Your task to perform on an android device: find photos in the google photos app Image 0: 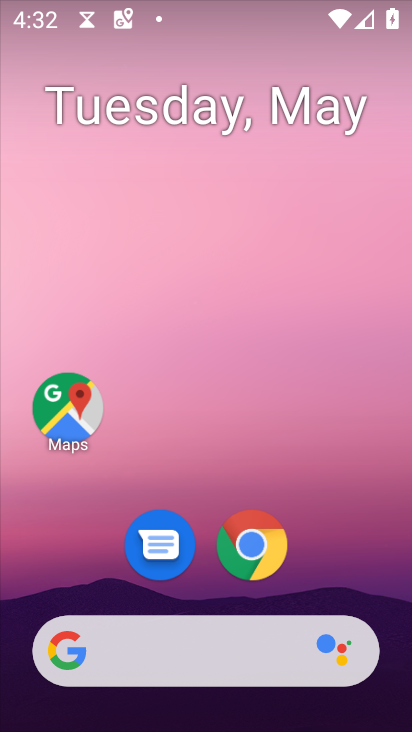
Step 0: drag from (353, 586) to (257, 173)
Your task to perform on an android device: find photos in the google photos app Image 1: 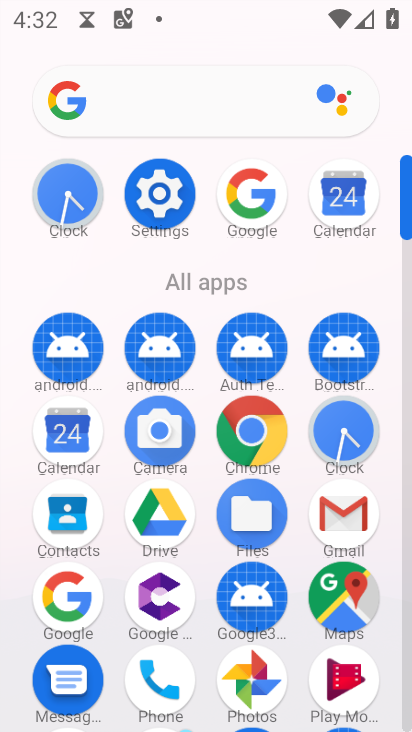
Step 1: drag from (201, 565) to (216, 245)
Your task to perform on an android device: find photos in the google photos app Image 2: 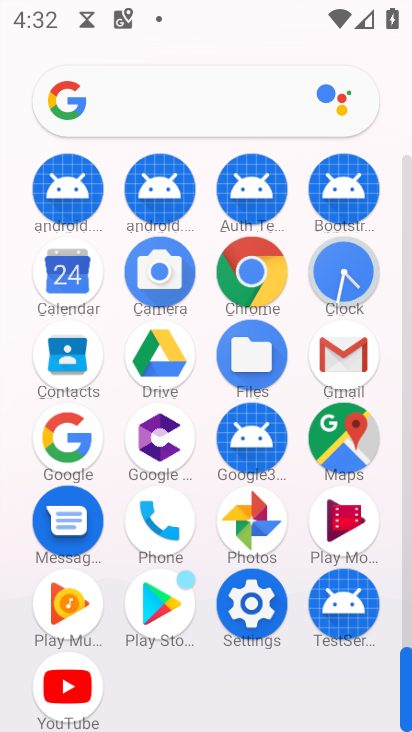
Step 2: click (252, 519)
Your task to perform on an android device: find photos in the google photos app Image 3: 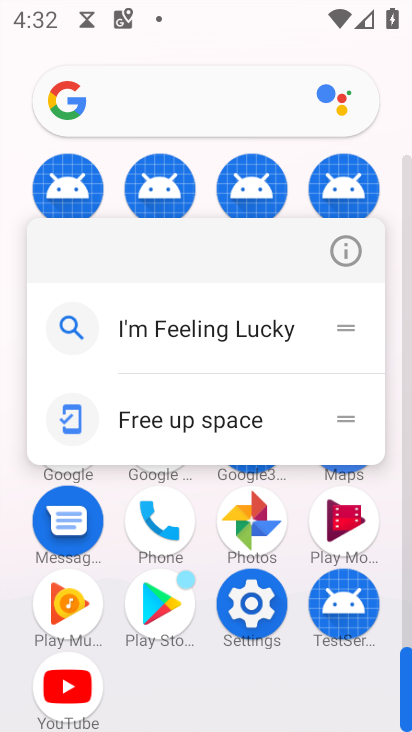
Step 3: click (252, 519)
Your task to perform on an android device: find photos in the google photos app Image 4: 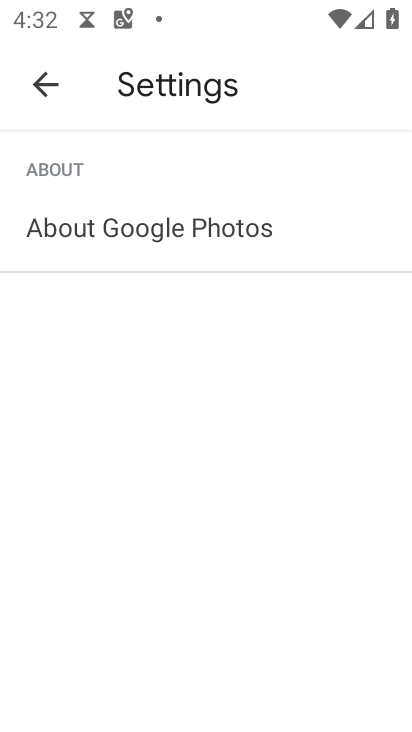
Step 4: click (42, 95)
Your task to perform on an android device: find photos in the google photos app Image 5: 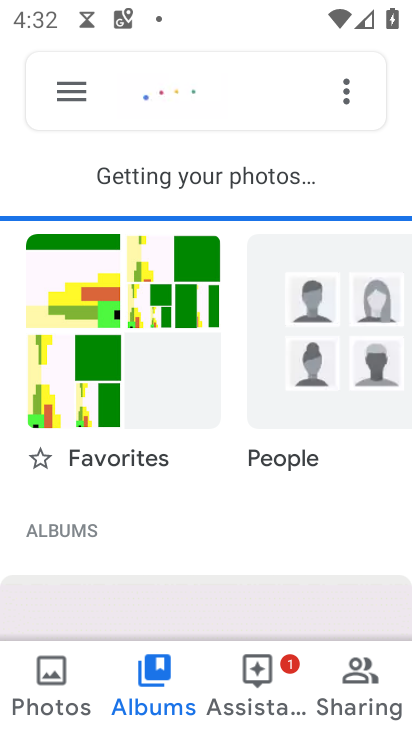
Step 5: click (92, 313)
Your task to perform on an android device: find photos in the google photos app Image 6: 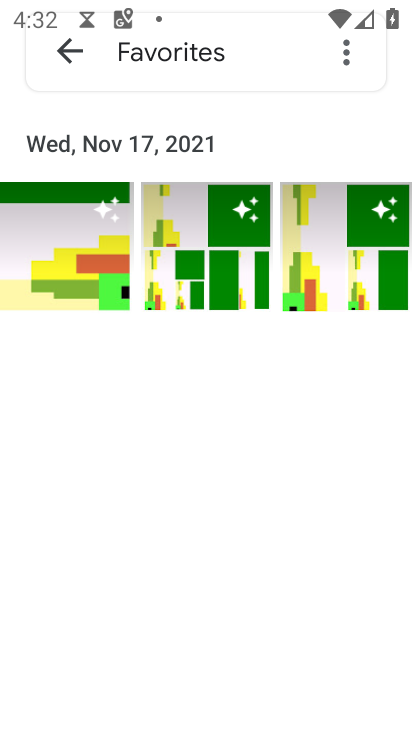
Step 6: task complete